Your task to perform on an android device: toggle sleep mode Image 0: 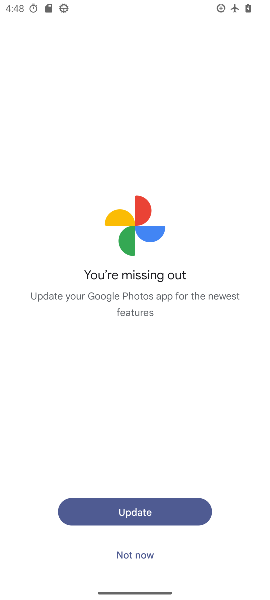
Step 0: press back button
Your task to perform on an android device: toggle sleep mode Image 1: 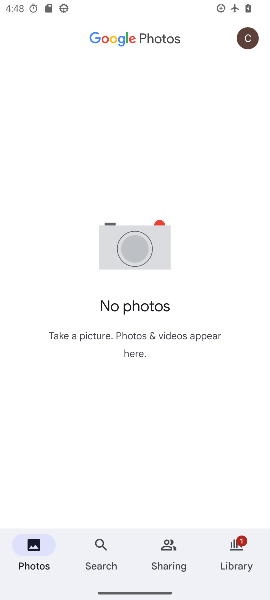
Step 1: press home button
Your task to perform on an android device: toggle sleep mode Image 2: 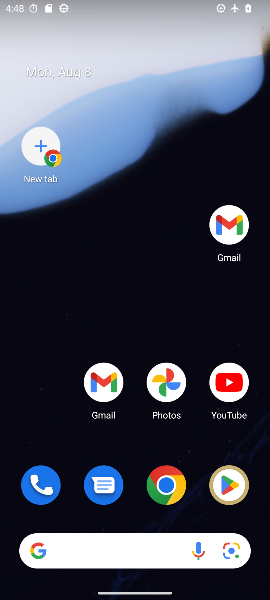
Step 2: drag from (143, 202) to (115, 158)
Your task to perform on an android device: toggle sleep mode Image 3: 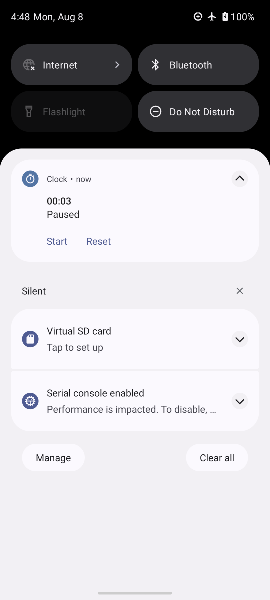
Step 3: drag from (119, 491) to (88, 162)
Your task to perform on an android device: toggle sleep mode Image 4: 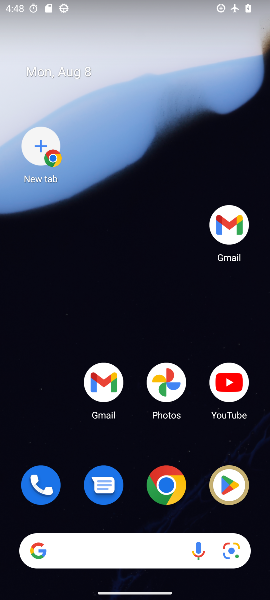
Step 4: press back button
Your task to perform on an android device: toggle sleep mode Image 5: 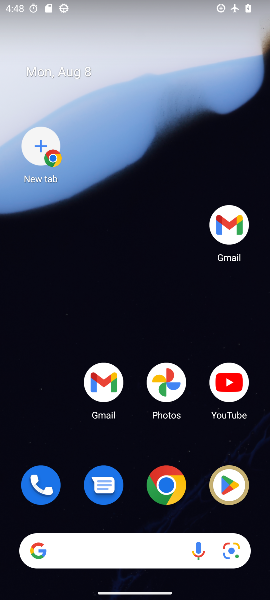
Step 5: click (85, 165)
Your task to perform on an android device: toggle sleep mode Image 6: 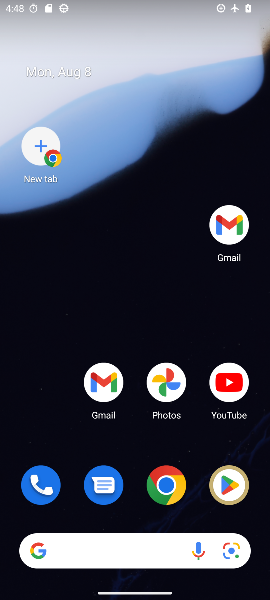
Step 6: drag from (102, 362) to (90, 174)
Your task to perform on an android device: toggle sleep mode Image 7: 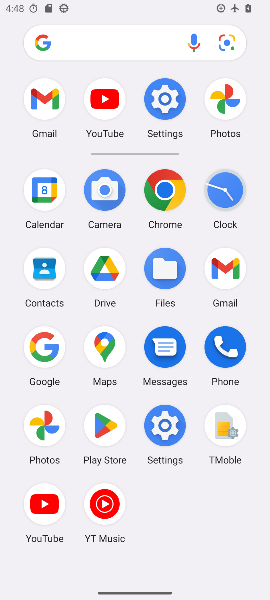
Step 7: click (172, 426)
Your task to perform on an android device: toggle sleep mode Image 8: 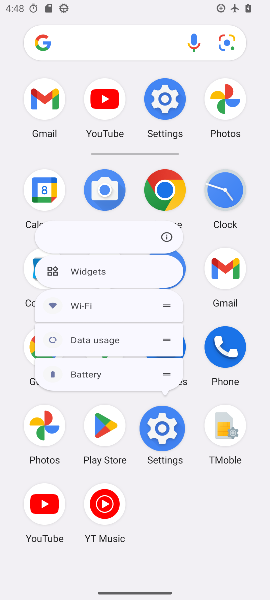
Step 8: click (167, 430)
Your task to perform on an android device: toggle sleep mode Image 9: 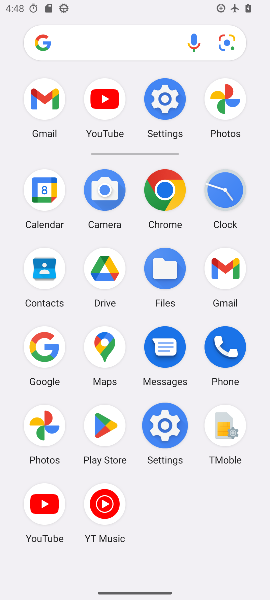
Step 9: click (167, 430)
Your task to perform on an android device: toggle sleep mode Image 10: 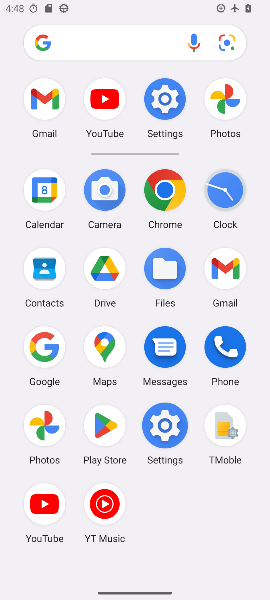
Step 10: click (167, 430)
Your task to perform on an android device: toggle sleep mode Image 11: 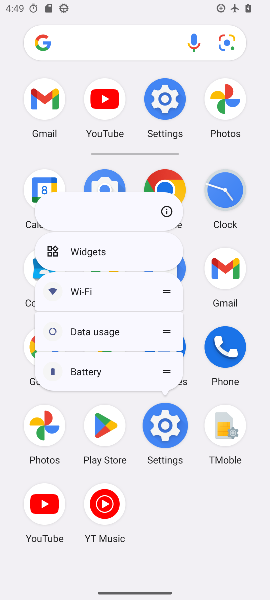
Step 11: click (167, 430)
Your task to perform on an android device: toggle sleep mode Image 12: 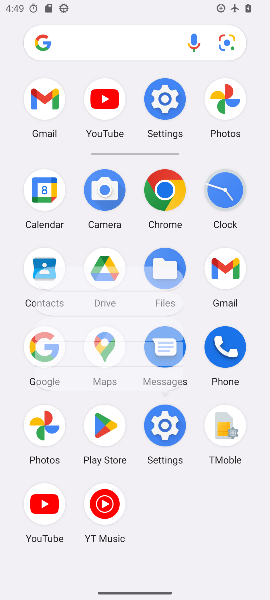
Step 12: click (167, 430)
Your task to perform on an android device: toggle sleep mode Image 13: 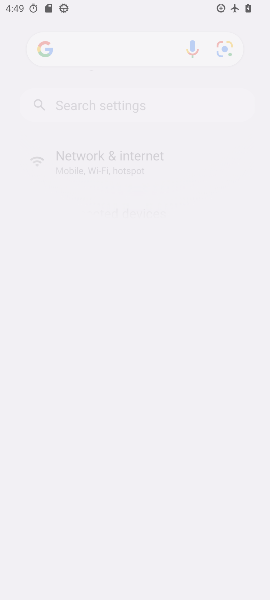
Step 13: click (166, 430)
Your task to perform on an android device: toggle sleep mode Image 14: 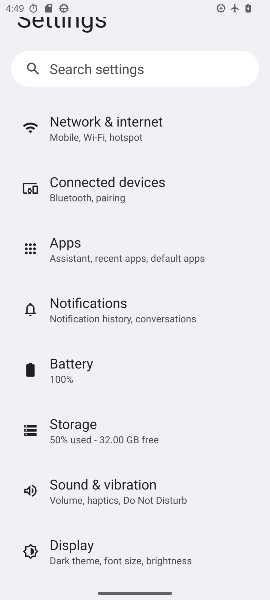
Step 14: click (166, 430)
Your task to perform on an android device: toggle sleep mode Image 15: 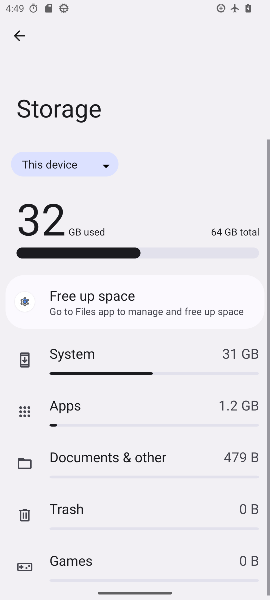
Step 15: click (15, 40)
Your task to perform on an android device: toggle sleep mode Image 16: 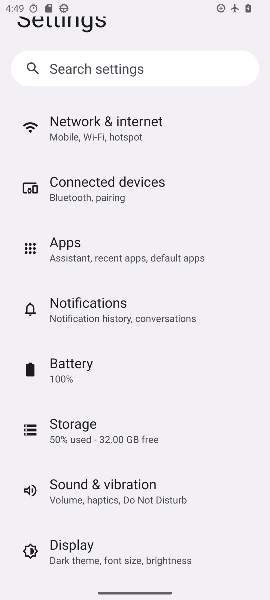
Step 16: drag from (139, 461) to (124, 173)
Your task to perform on an android device: toggle sleep mode Image 17: 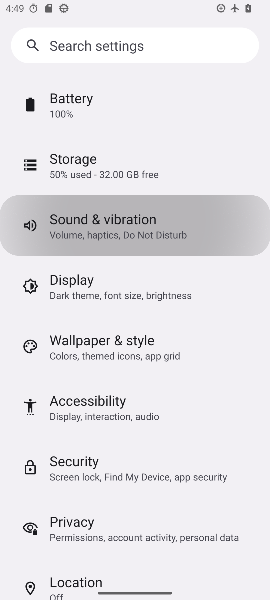
Step 17: drag from (134, 429) to (102, 159)
Your task to perform on an android device: toggle sleep mode Image 18: 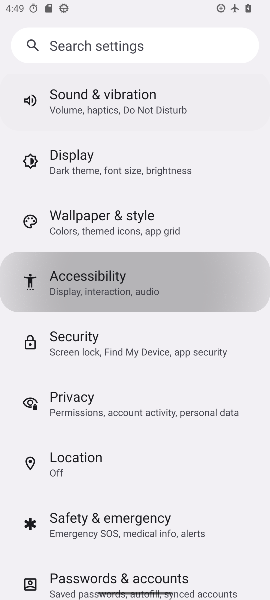
Step 18: drag from (128, 377) to (98, 161)
Your task to perform on an android device: toggle sleep mode Image 19: 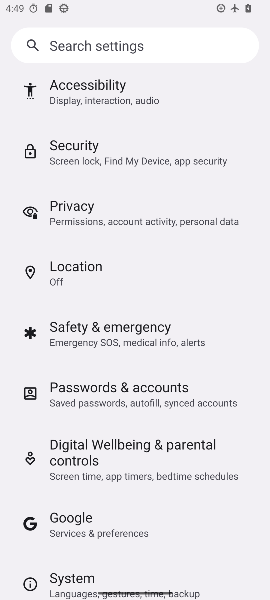
Step 19: drag from (85, 494) to (86, 272)
Your task to perform on an android device: toggle sleep mode Image 20: 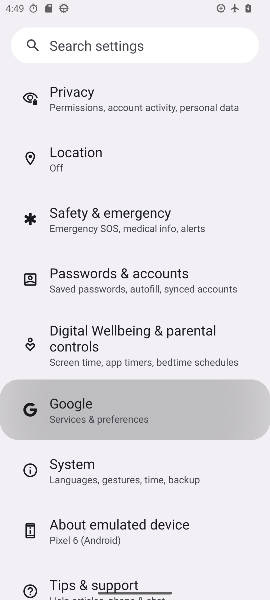
Step 20: drag from (143, 377) to (143, 179)
Your task to perform on an android device: toggle sleep mode Image 21: 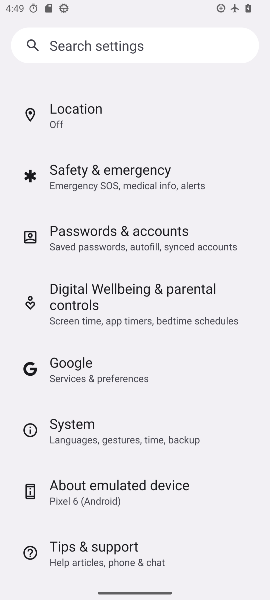
Step 21: drag from (152, 361) to (152, 182)
Your task to perform on an android device: toggle sleep mode Image 22: 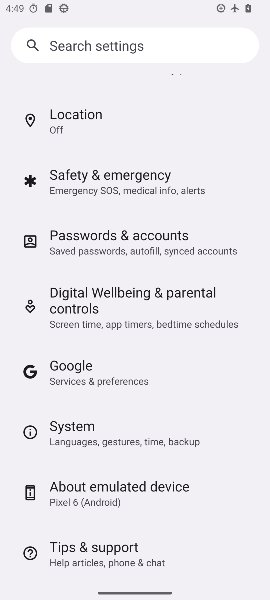
Step 22: drag from (83, 113) to (112, 385)
Your task to perform on an android device: toggle sleep mode Image 23: 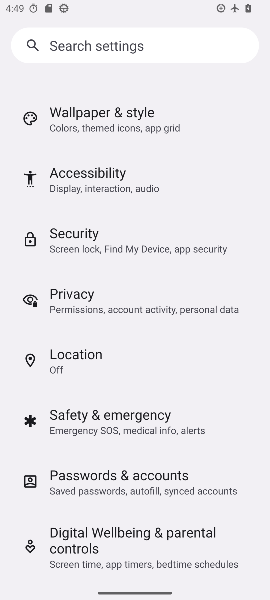
Step 23: drag from (142, 405) to (154, 459)
Your task to perform on an android device: toggle sleep mode Image 24: 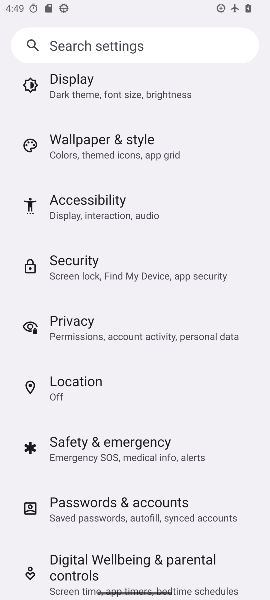
Step 24: drag from (126, 305) to (155, 526)
Your task to perform on an android device: toggle sleep mode Image 25: 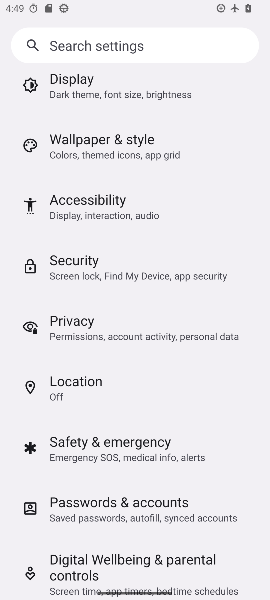
Step 25: drag from (93, 183) to (105, 402)
Your task to perform on an android device: toggle sleep mode Image 26: 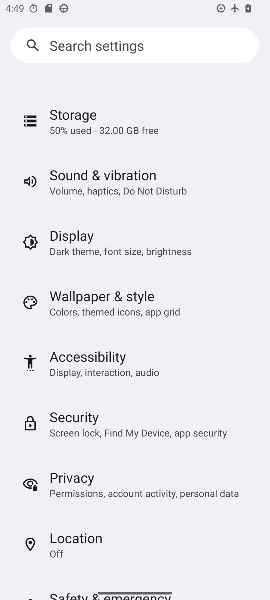
Step 26: drag from (108, 222) to (141, 462)
Your task to perform on an android device: toggle sleep mode Image 27: 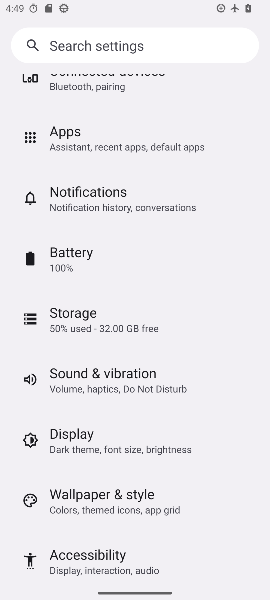
Step 27: drag from (109, 321) to (130, 492)
Your task to perform on an android device: toggle sleep mode Image 28: 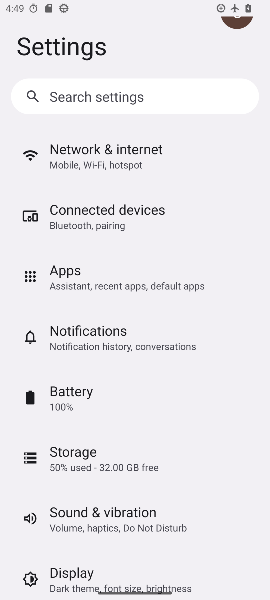
Step 28: click (76, 578)
Your task to perform on an android device: toggle sleep mode Image 29: 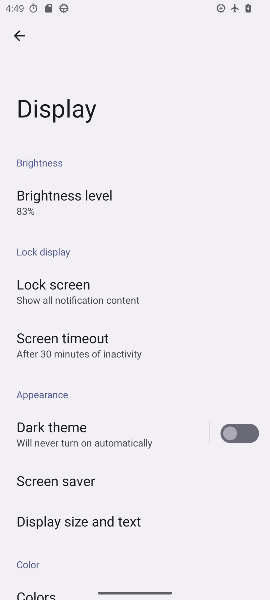
Step 29: click (60, 347)
Your task to perform on an android device: toggle sleep mode Image 30: 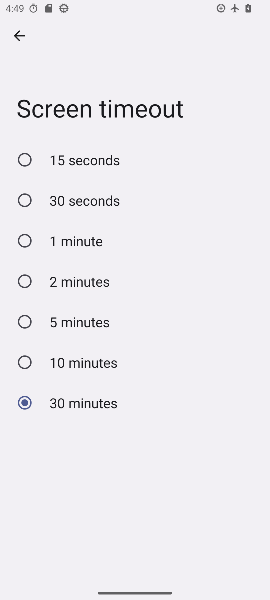
Step 30: click (17, 318)
Your task to perform on an android device: toggle sleep mode Image 31: 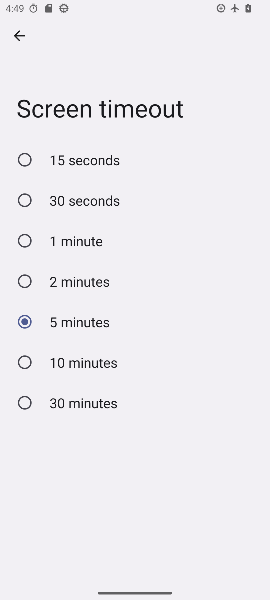
Step 31: task complete